Your task to perform on an android device: Open Google Image 0: 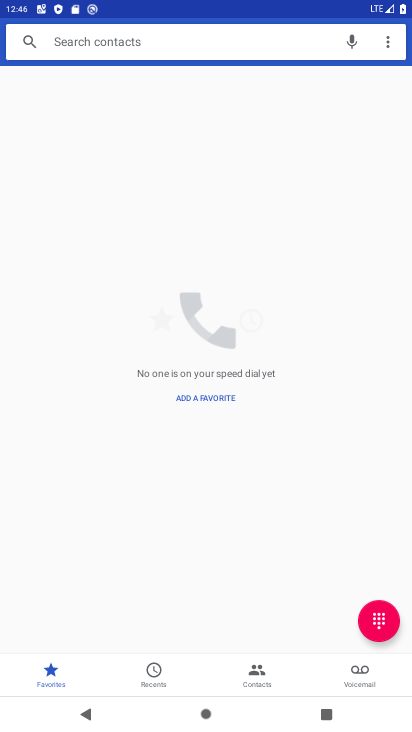
Step 0: press home button
Your task to perform on an android device: Open Google Image 1: 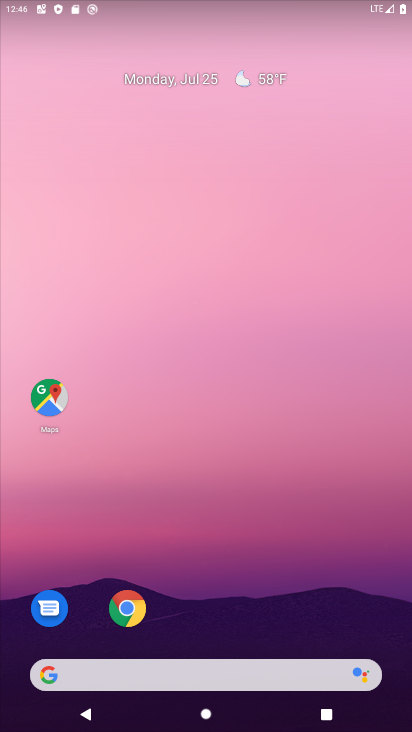
Step 1: drag from (177, 674) to (256, 58)
Your task to perform on an android device: Open Google Image 2: 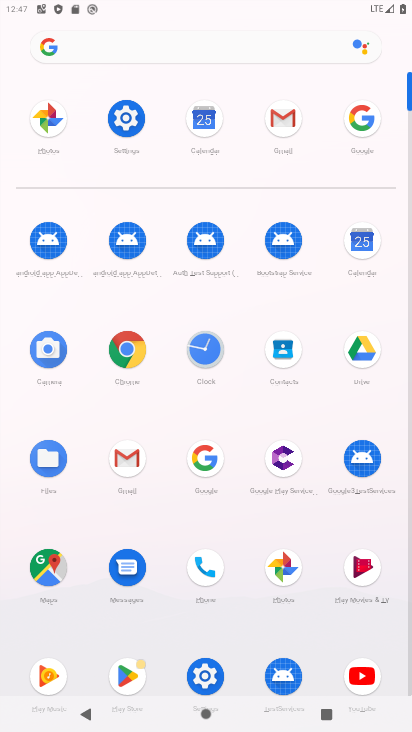
Step 2: click (361, 117)
Your task to perform on an android device: Open Google Image 3: 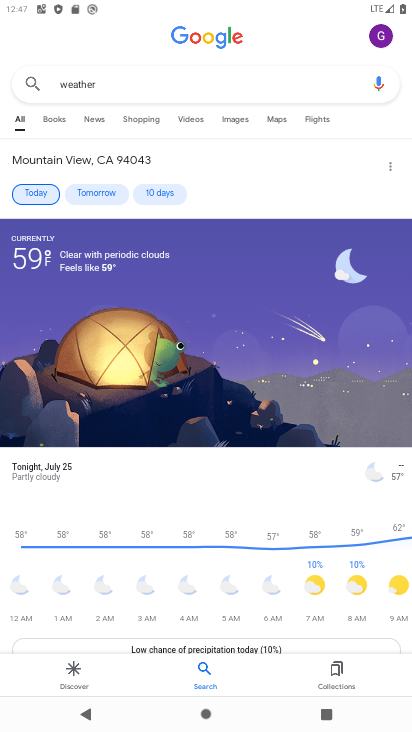
Step 3: task complete